Your task to perform on an android device: clear all cookies in the chrome app Image 0: 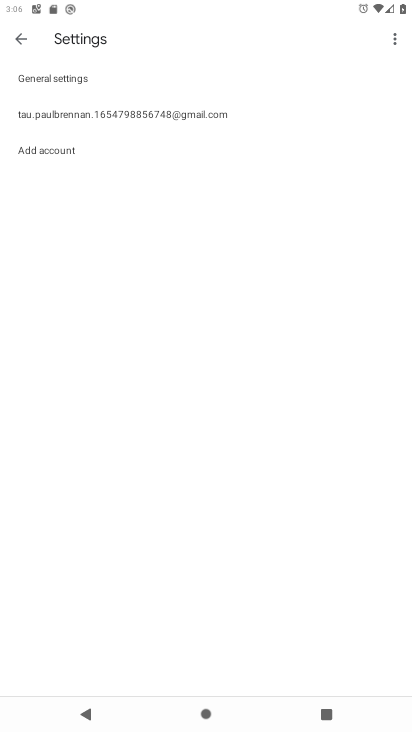
Step 0: press home button
Your task to perform on an android device: clear all cookies in the chrome app Image 1: 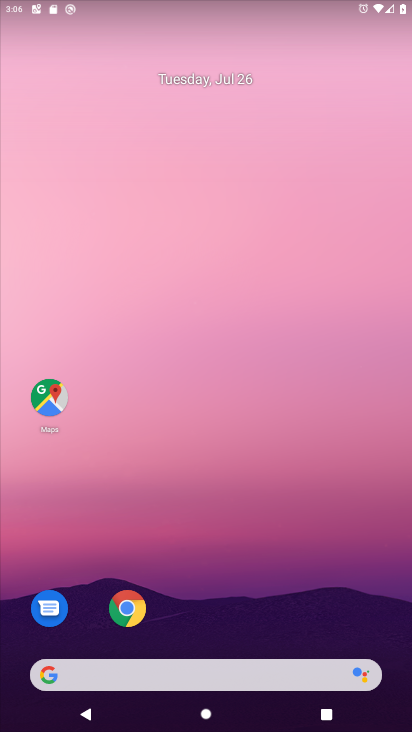
Step 1: click (119, 615)
Your task to perform on an android device: clear all cookies in the chrome app Image 2: 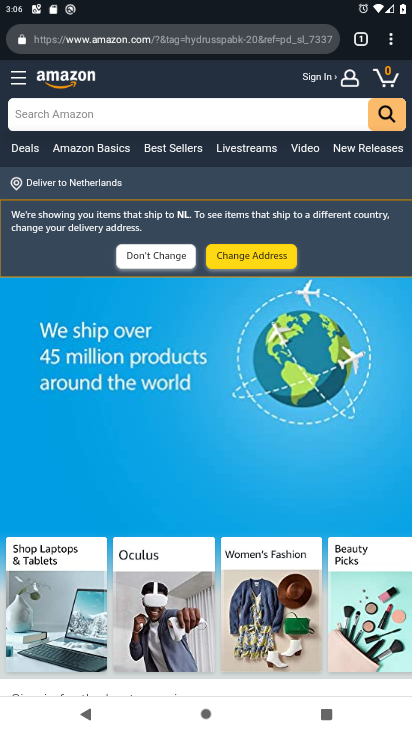
Step 2: click (396, 41)
Your task to perform on an android device: clear all cookies in the chrome app Image 3: 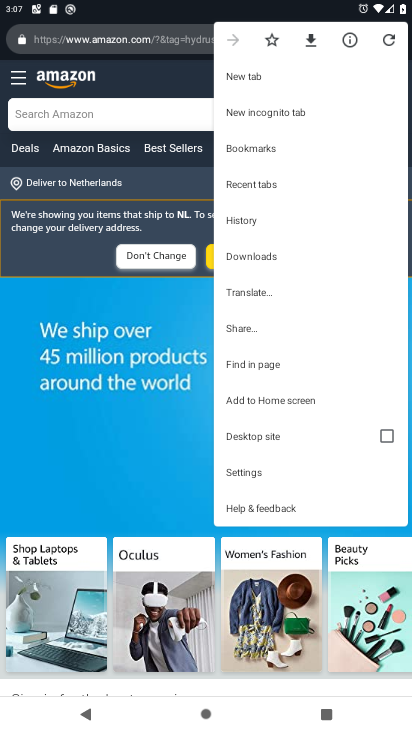
Step 3: click (258, 218)
Your task to perform on an android device: clear all cookies in the chrome app Image 4: 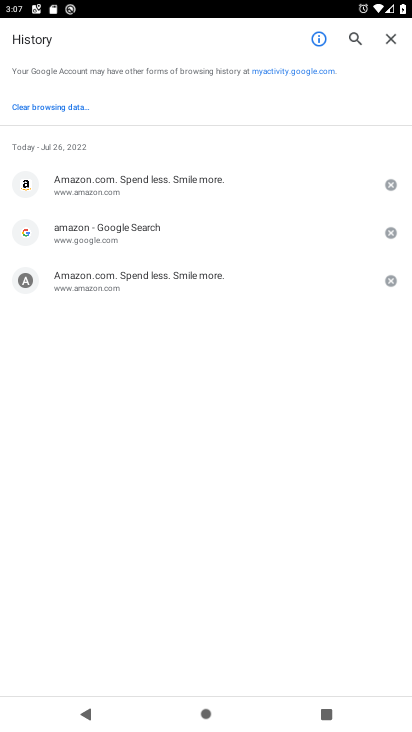
Step 4: click (66, 101)
Your task to perform on an android device: clear all cookies in the chrome app Image 5: 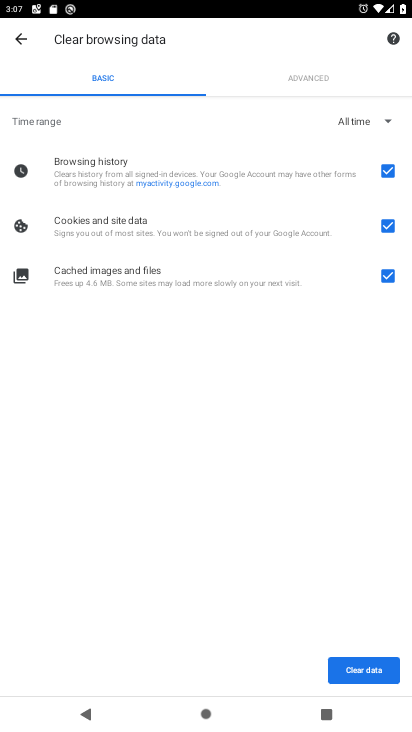
Step 5: click (389, 166)
Your task to perform on an android device: clear all cookies in the chrome app Image 6: 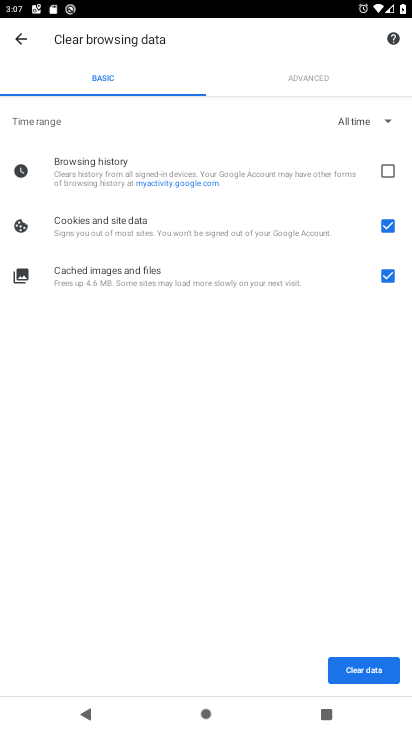
Step 6: click (389, 267)
Your task to perform on an android device: clear all cookies in the chrome app Image 7: 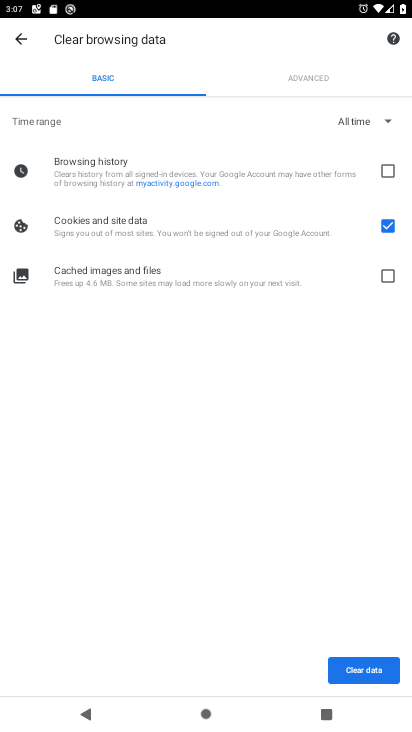
Step 7: click (377, 677)
Your task to perform on an android device: clear all cookies in the chrome app Image 8: 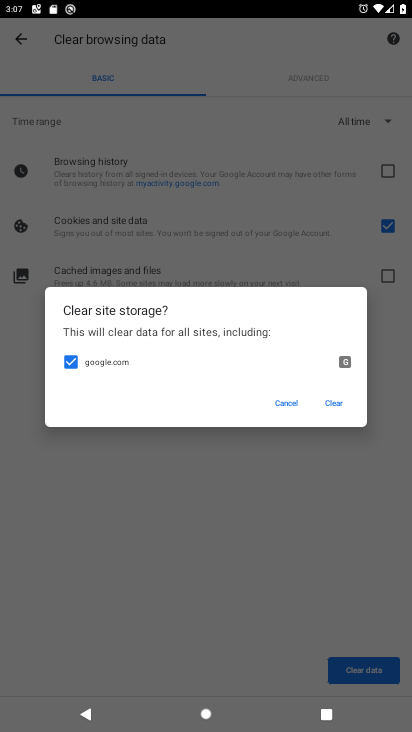
Step 8: click (338, 397)
Your task to perform on an android device: clear all cookies in the chrome app Image 9: 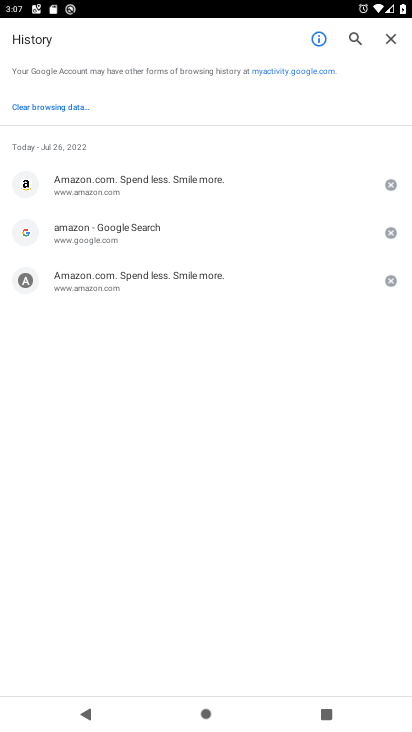
Step 9: task complete